Your task to perform on an android device: change timer sound Image 0: 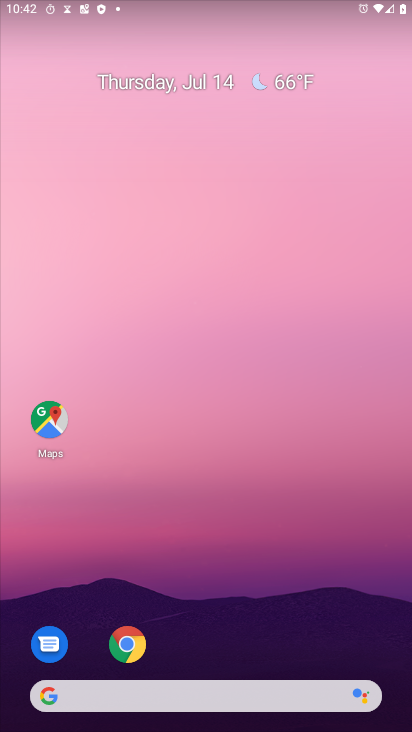
Step 0: drag from (189, 335) to (135, 57)
Your task to perform on an android device: change timer sound Image 1: 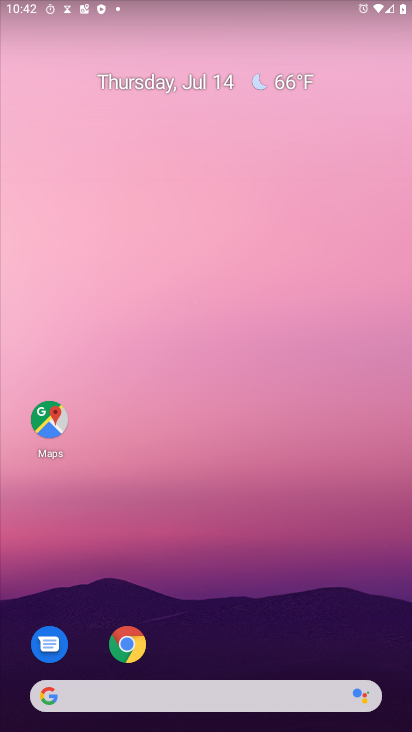
Step 1: drag from (249, 609) to (286, 225)
Your task to perform on an android device: change timer sound Image 2: 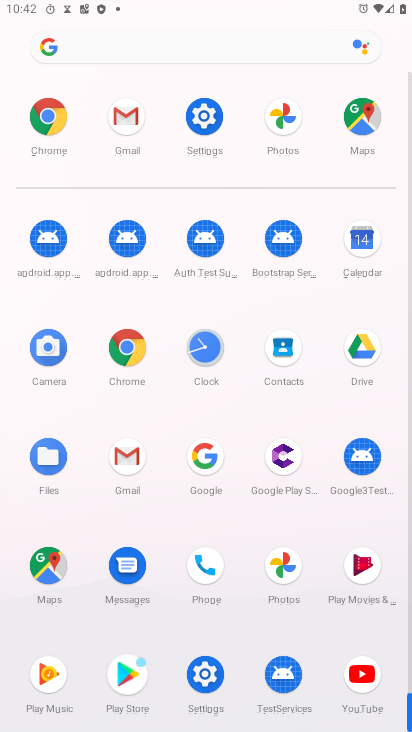
Step 2: click (196, 356)
Your task to perform on an android device: change timer sound Image 3: 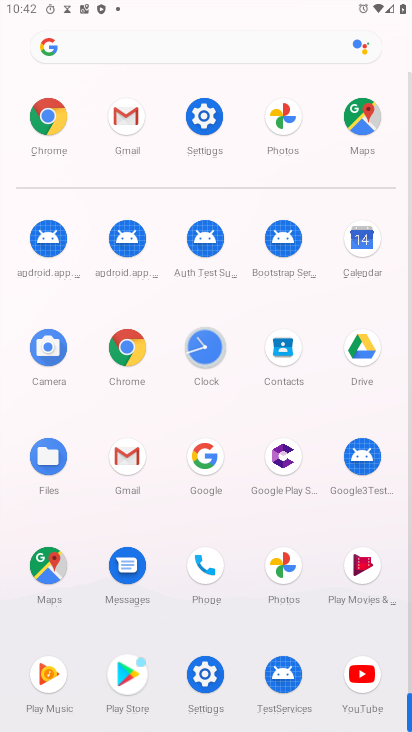
Step 3: click (196, 356)
Your task to perform on an android device: change timer sound Image 4: 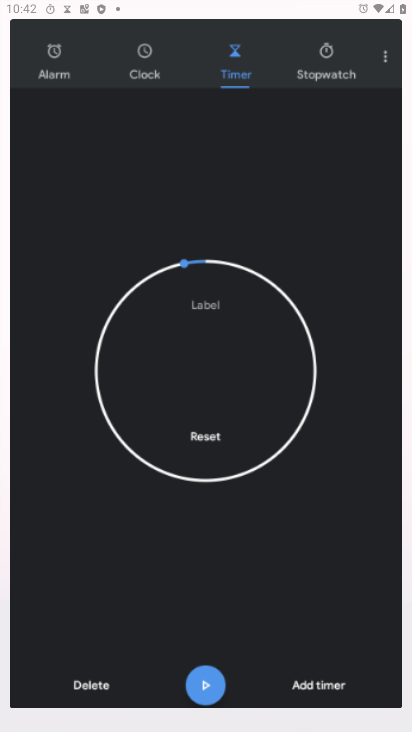
Step 4: click (196, 356)
Your task to perform on an android device: change timer sound Image 5: 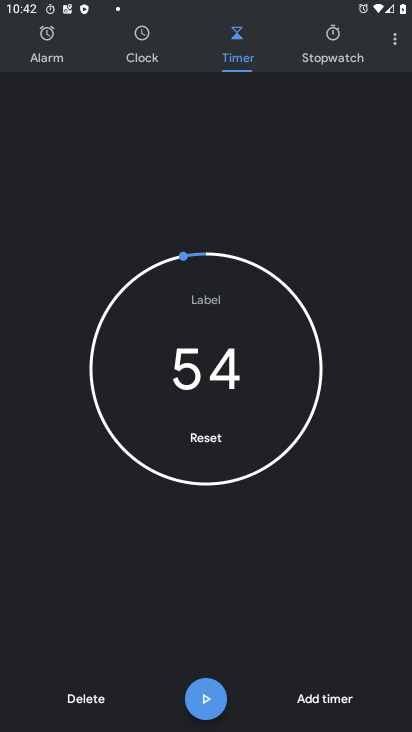
Step 5: click (197, 355)
Your task to perform on an android device: change timer sound Image 6: 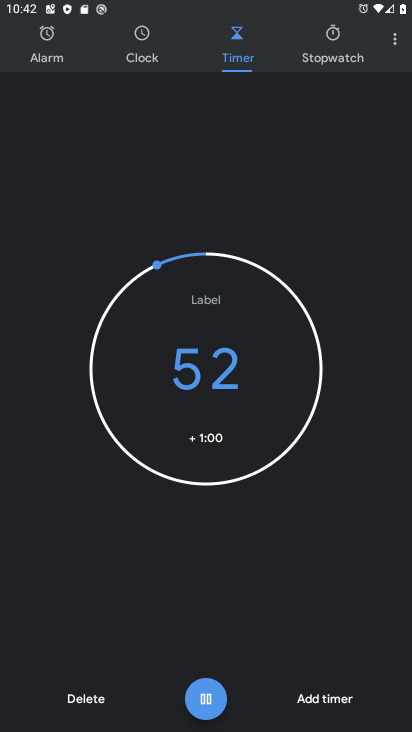
Step 6: click (245, 62)
Your task to perform on an android device: change timer sound Image 7: 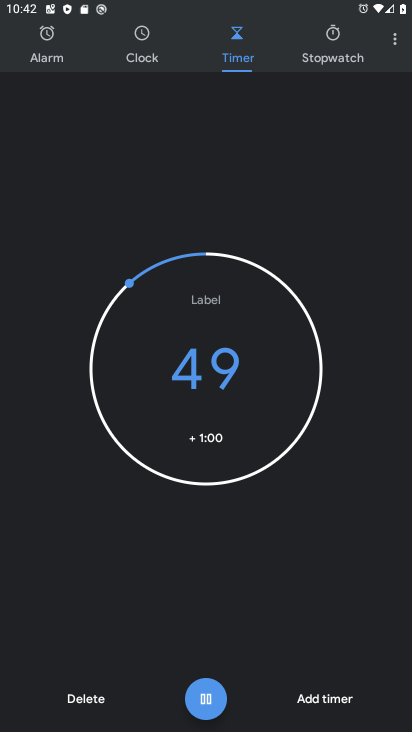
Step 7: click (201, 696)
Your task to perform on an android device: change timer sound Image 8: 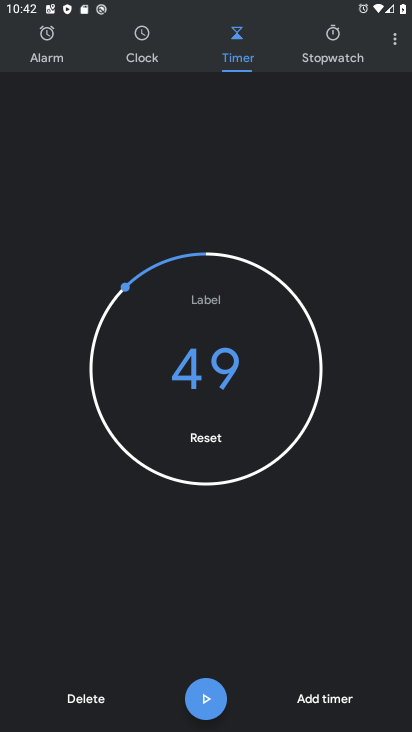
Step 8: click (402, 40)
Your task to perform on an android device: change timer sound Image 9: 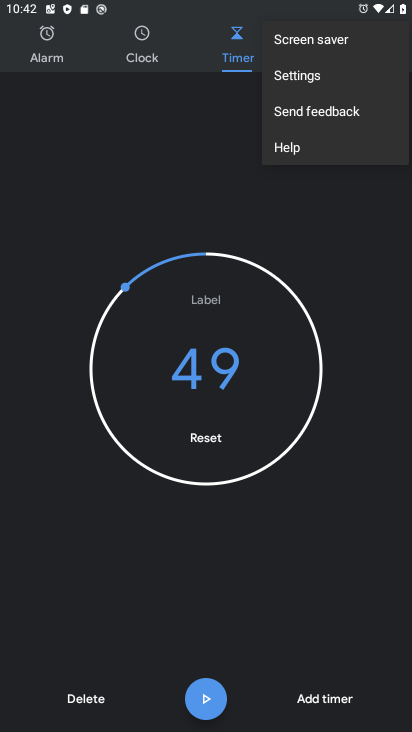
Step 9: click (291, 75)
Your task to perform on an android device: change timer sound Image 10: 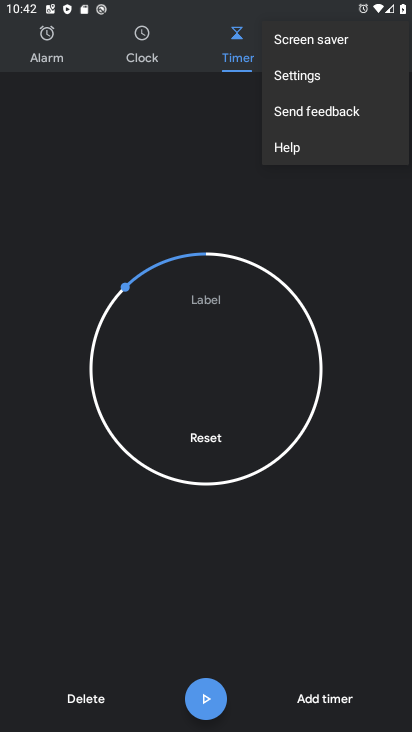
Step 10: click (292, 86)
Your task to perform on an android device: change timer sound Image 11: 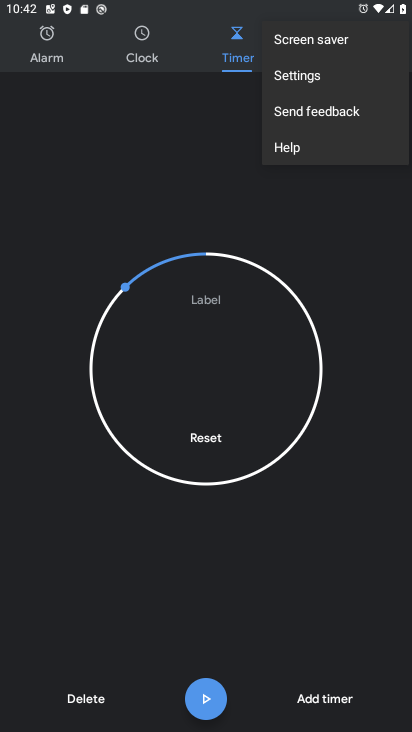
Step 11: click (293, 84)
Your task to perform on an android device: change timer sound Image 12: 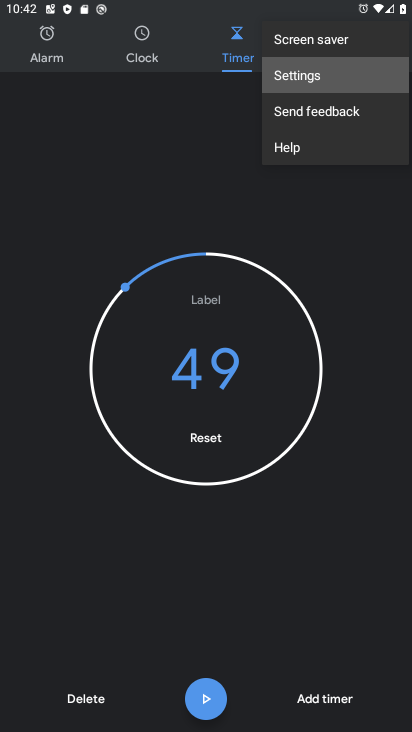
Step 12: click (294, 84)
Your task to perform on an android device: change timer sound Image 13: 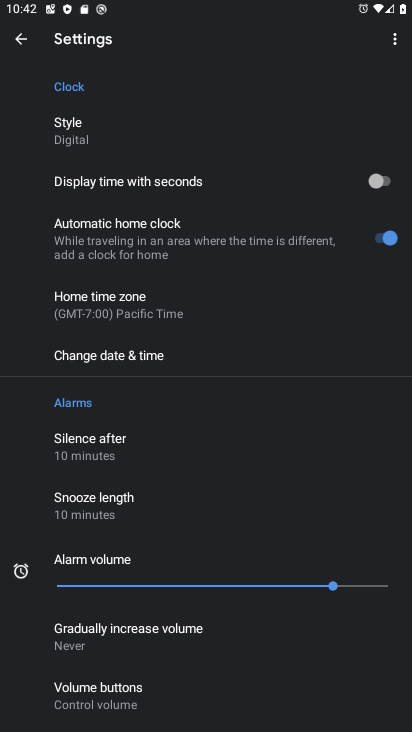
Step 13: drag from (124, 507) to (139, 194)
Your task to perform on an android device: change timer sound Image 14: 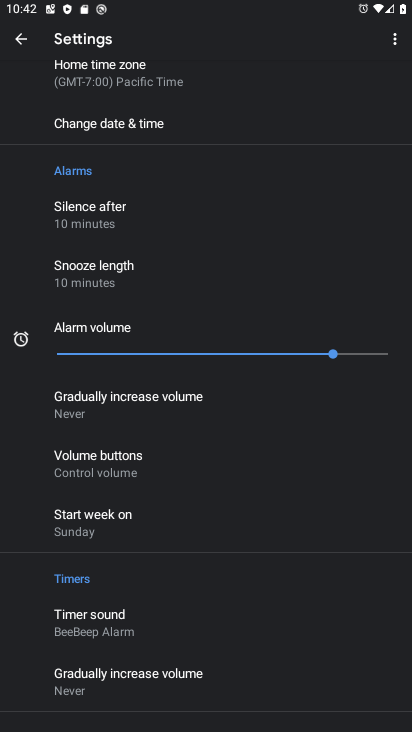
Step 14: click (93, 621)
Your task to perform on an android device: change timer sound Image 15: 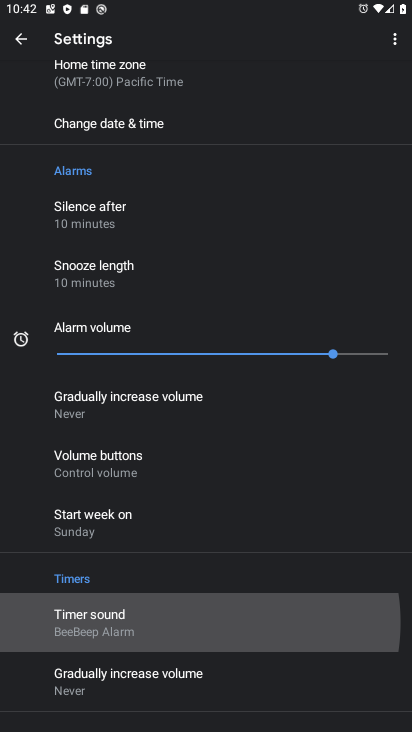
Step 15: click (92, 622)
Your task to perform on an android device: change timer sound Image 16: 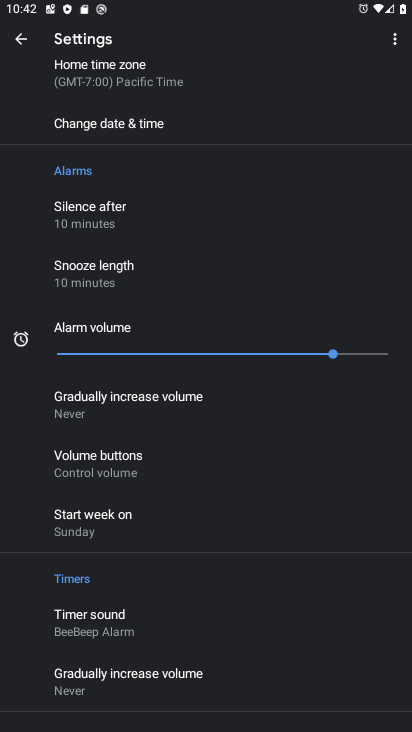
Step 16: click (95, 622)
Your task to perform on an android device: change timer sound Image 17: 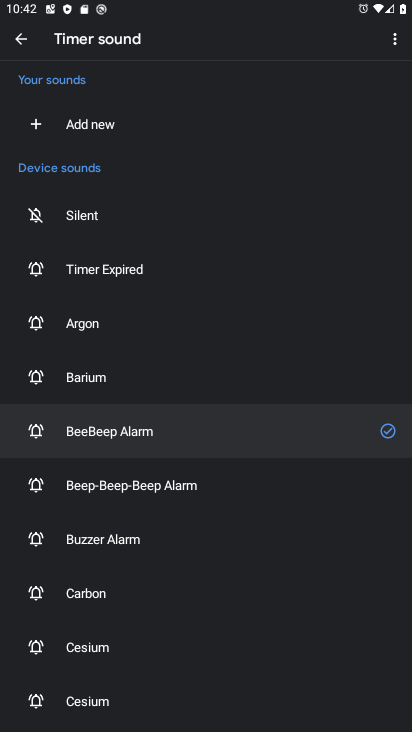
Step 17: click (84, 587)
Your task to perform on an android device: change timer sound Image 18: 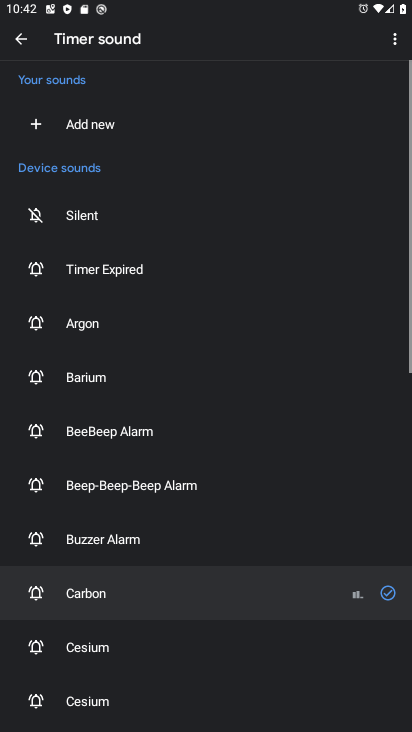
Step 18: click (87, 583)
Your task to perform on an android device: change timer sound Image 19: 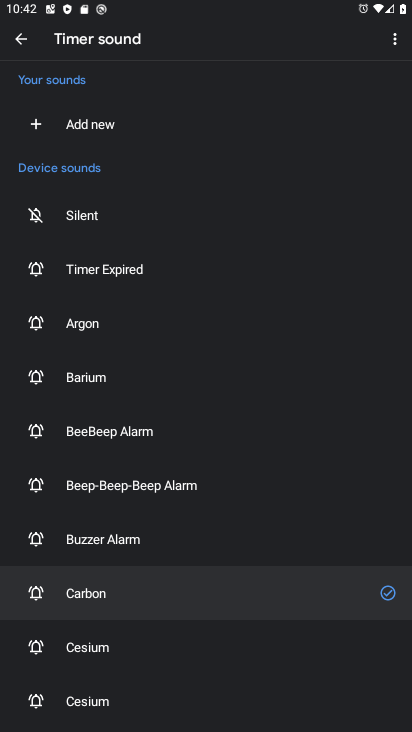
Step 19: task complete